Your task to perform on an android device: turn off notifications in google photos Image 0: 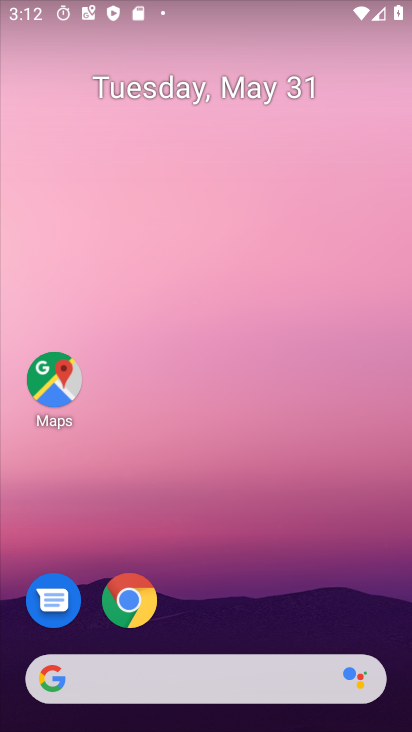
Step 0: drag from (217, 630) to (284, 138)
Your task to perform on an android device: turn off notifications in google photos Image 1: 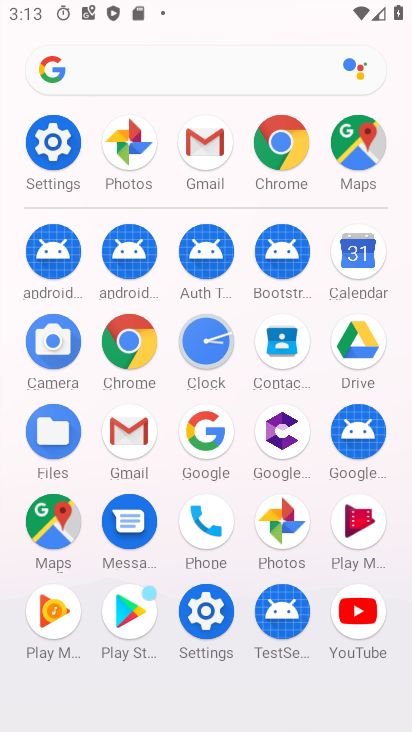
Step 1: click (285, 514)
Your task to perform on an android device: turn off notifications in google photos Image 2: 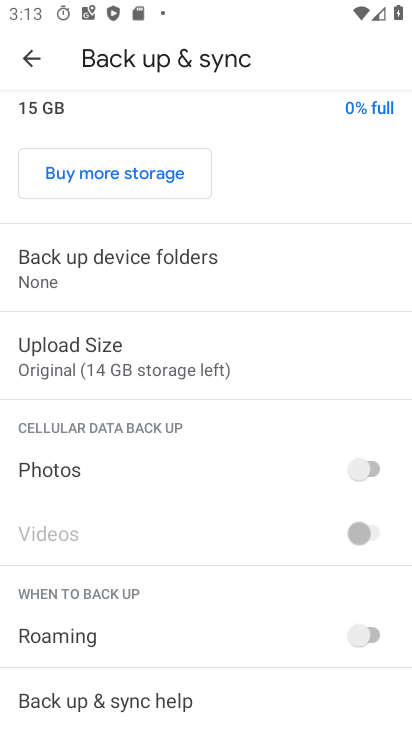
Step 2: click (38, 61)
Your task to perform on an android device: turn off notifications in google photos Image 3: 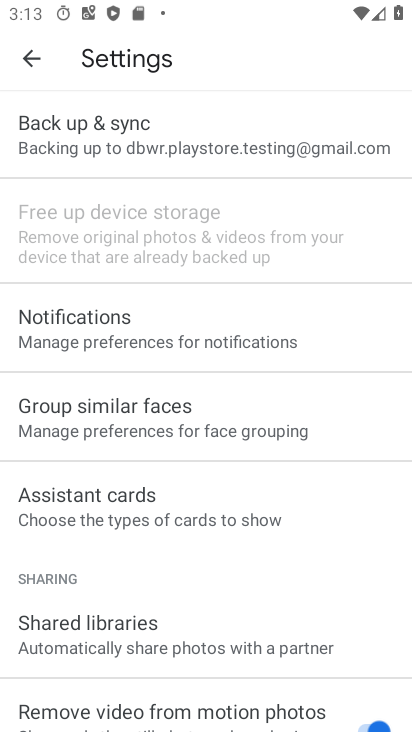
Step 3: click (104, 335)
Your task to perform on an android device: turn off notifications in google photos Image 4: 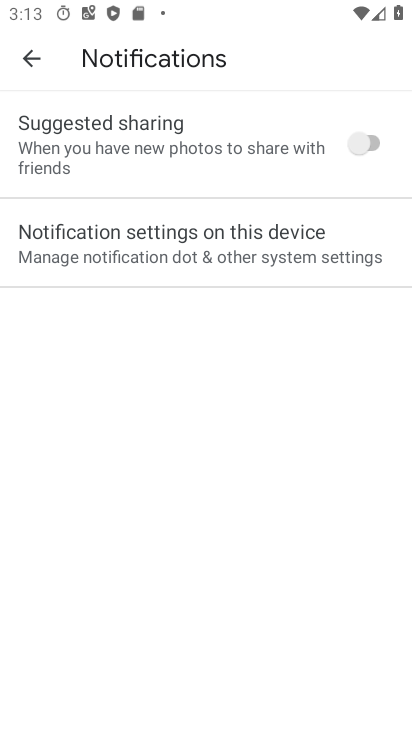
Step 4: click (192, 255)
Your task to perform on an android device: turn off notifications in google photos Image 5: 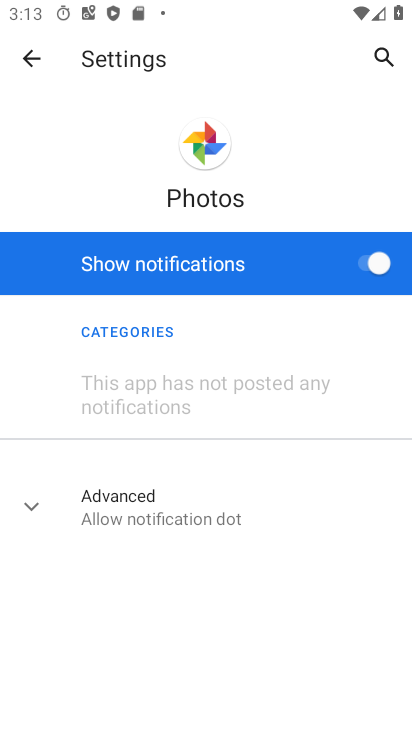
Step 5: click (366, 257)
Your task to perform on an android device: turn off notifications in google photos Image 6: 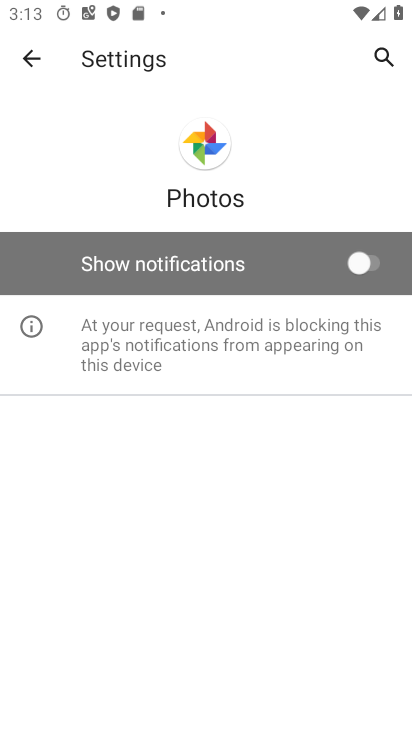
Step 6: task complete